Your task to perform on an android device: open app "Walmart Shopping & Grocery" (install if not already installed) Image 0: 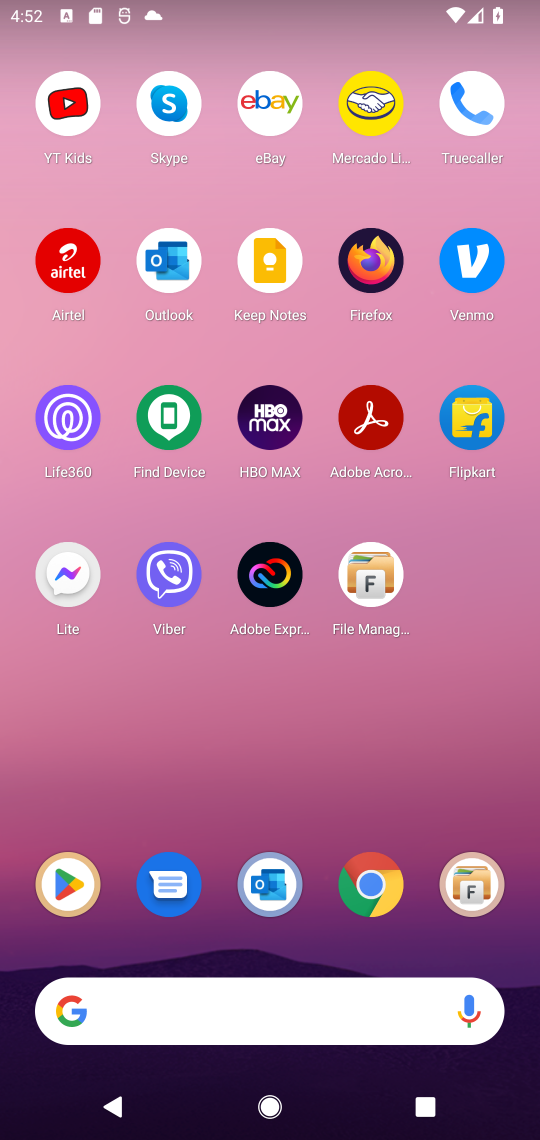
Step 0: click (49, 871)
Your task to perform on an android device: open app "Walmart Shopping & Grocery" (install if not already installed) Image 1: 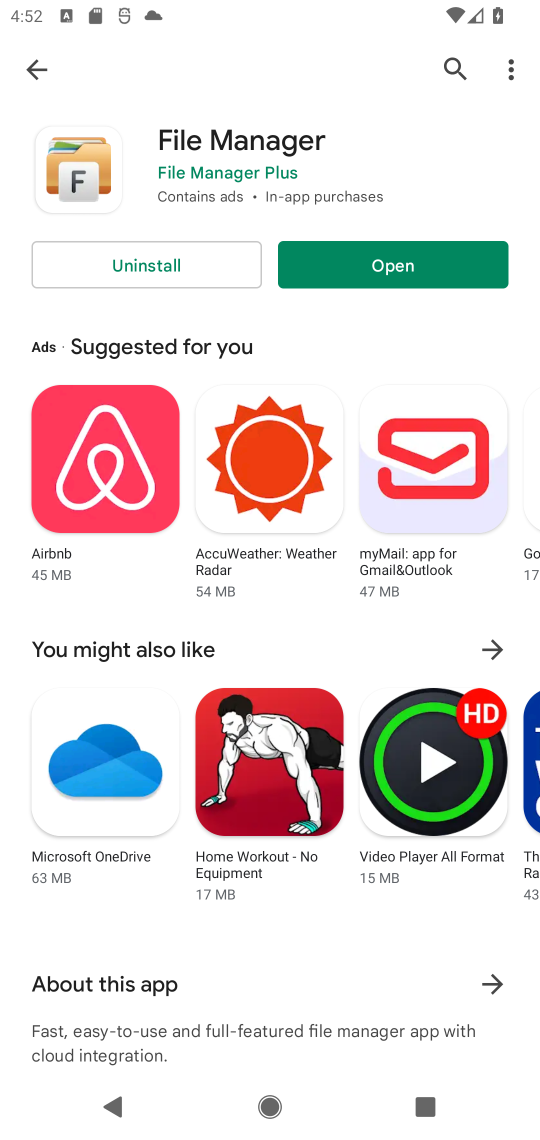
Step 1: click (34, 75)
Your task to perform on an android device: open app "Walmart Shopping & Grocery" (install if not already installed) Image 2: 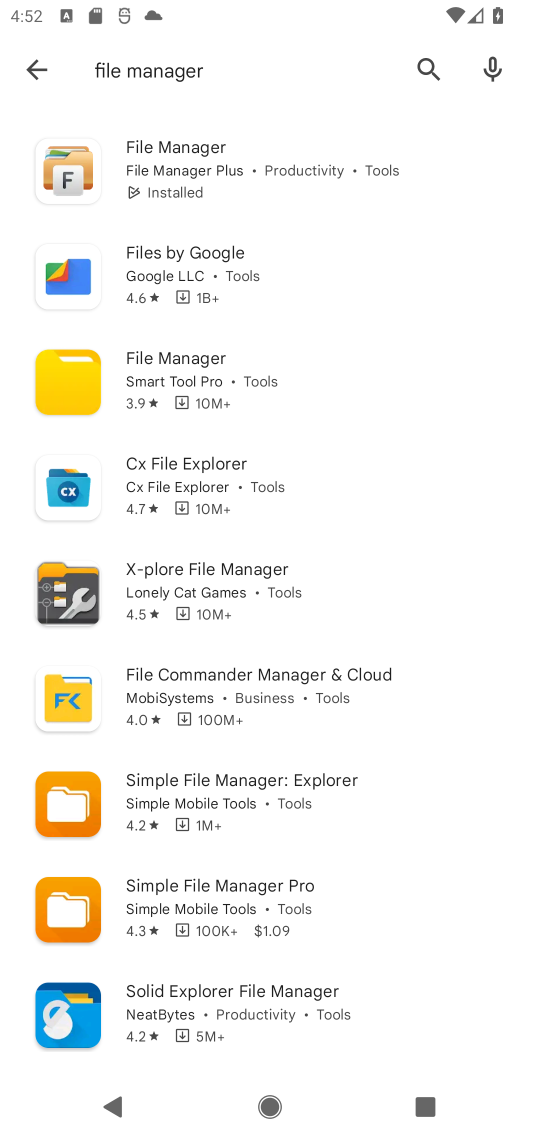
Step 2: click (37, 73)
Your task to perform on an android device: open app "Walmart Shopping & Grocery" (install if not already installed) Image 3: 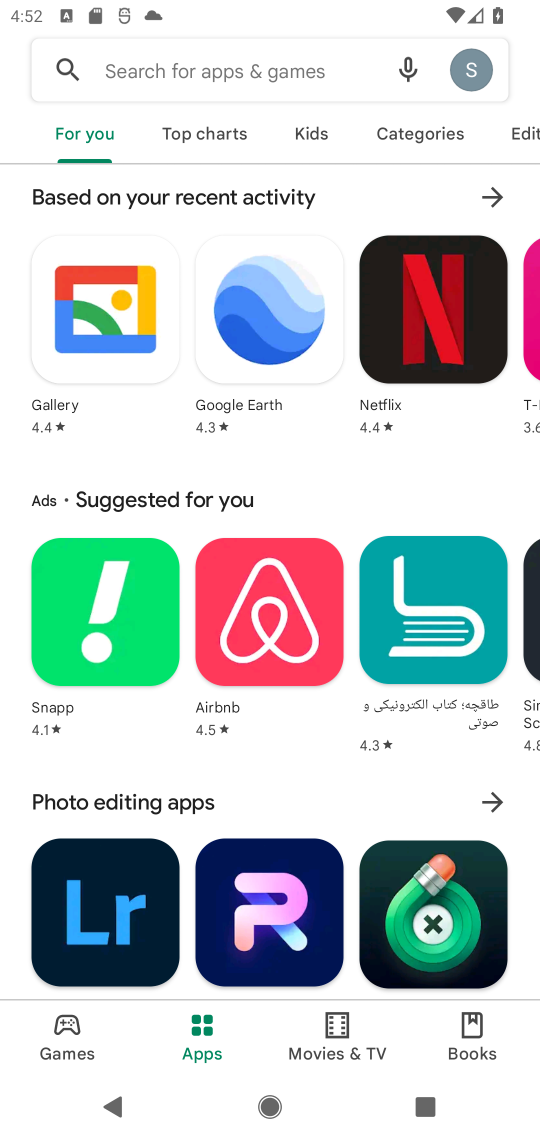
Step 3: click (164, 77)
Your task to perform on an android device: open app "Walmart Shopping & Grocery" (install if not already installed) Image 4: 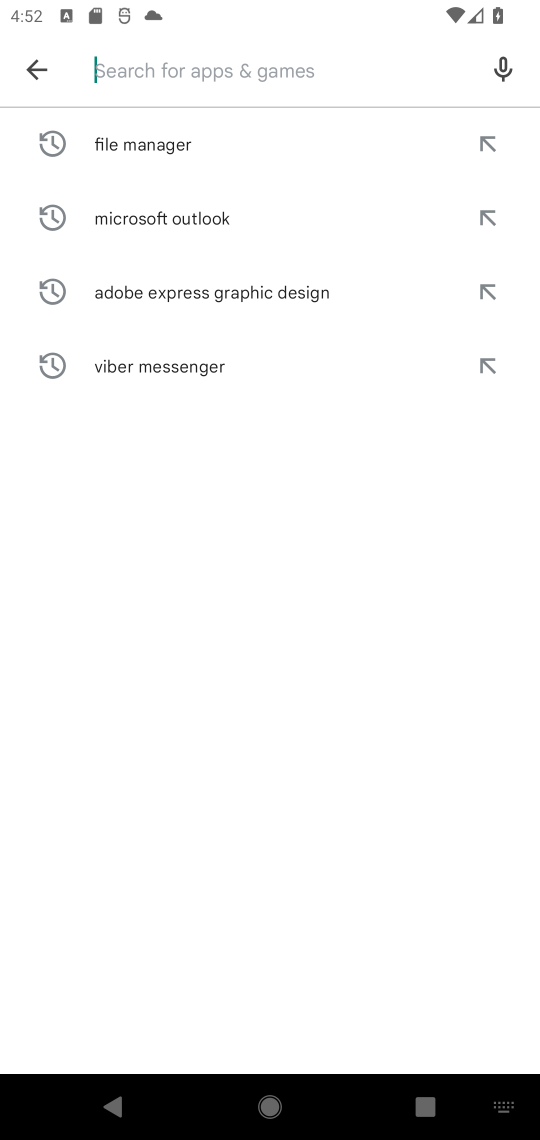
Step 4: type "Walmart Shopping & Grocery"
Your task to perform on an android device: open app "Walmart Shopping & Grocery" (install if not already installed) Image 5: 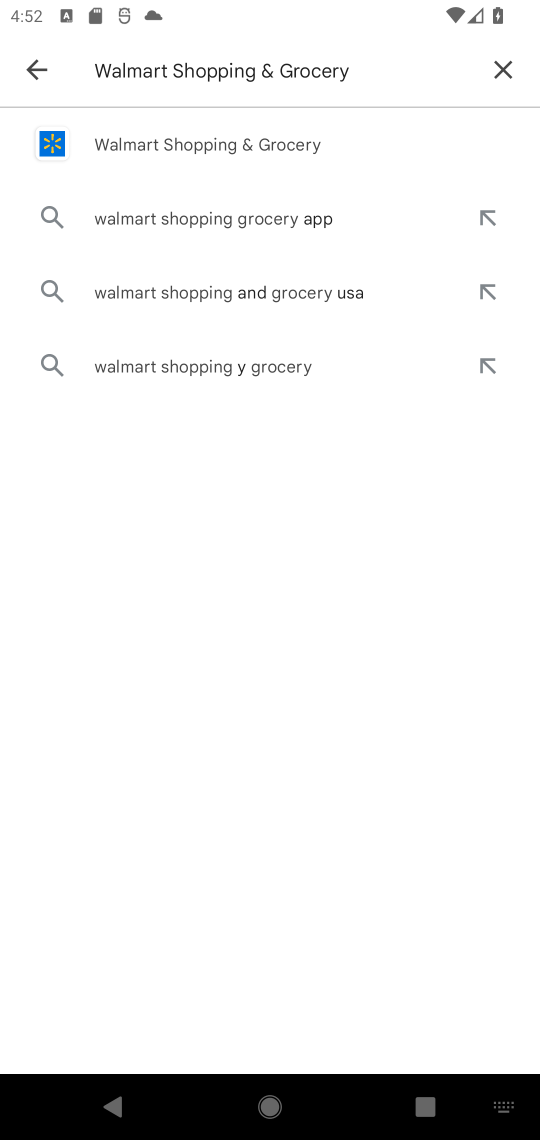
Step 5: click (266, 136)
Your task to perform on an android device: open app "Walmart Shopping & Grocery" (install if not already installed) Image 6: 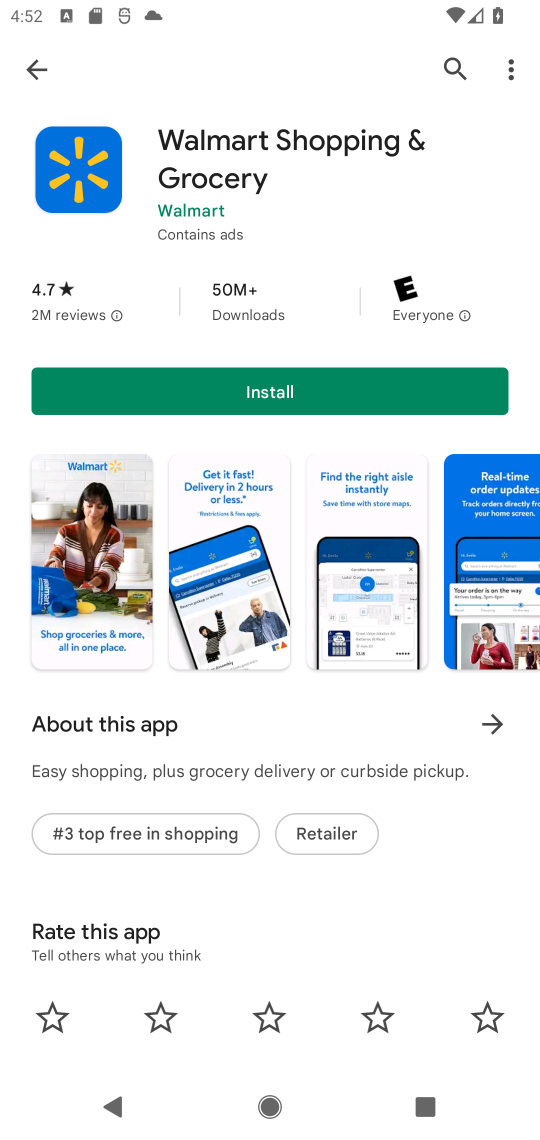
Step 6: click (254, 391)
Your task to perform on an android device: open app "Walmart Shopping & Grocery" (install if not already installed) Image 7: 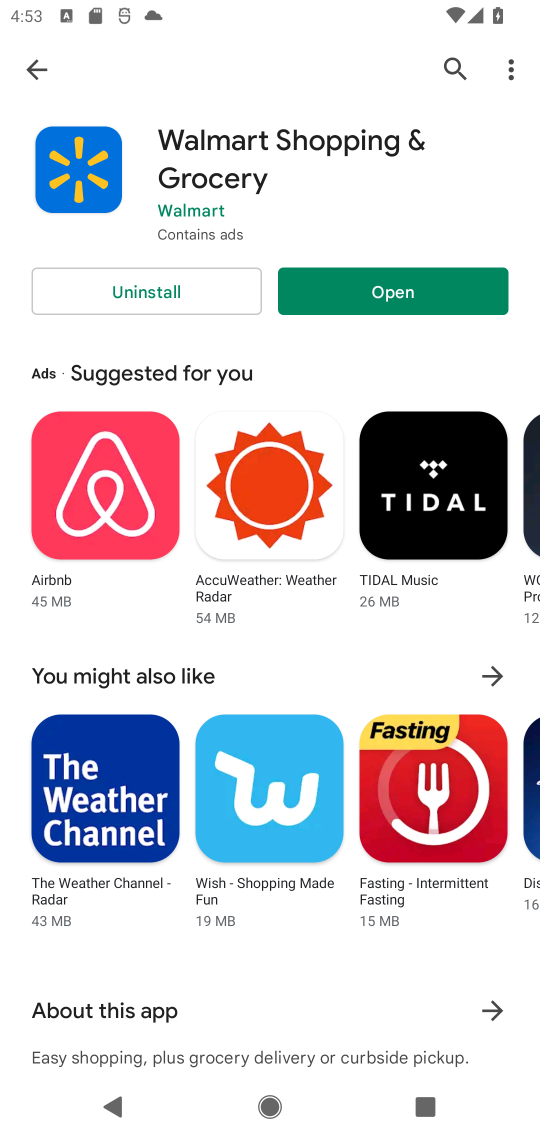
Step 7: click (378, 314)
Your task to perform on an android device: open app "Walmart Shopping & Grocery" (install if not already installed) Image 8: 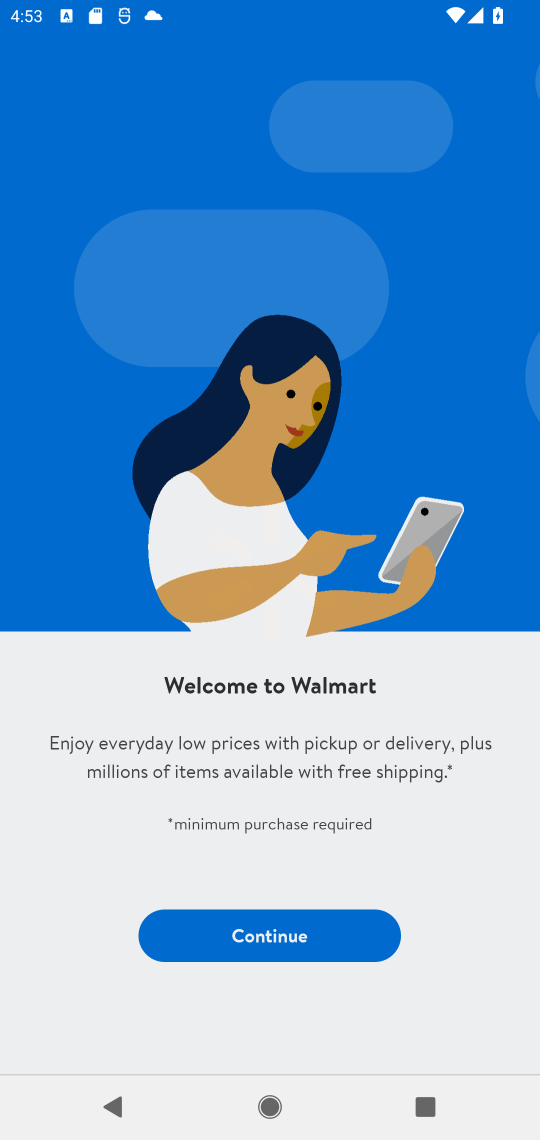
Step 8: task complete